Your task to perform on an android device: remove spam from my inbox in the gmail app Image 0: 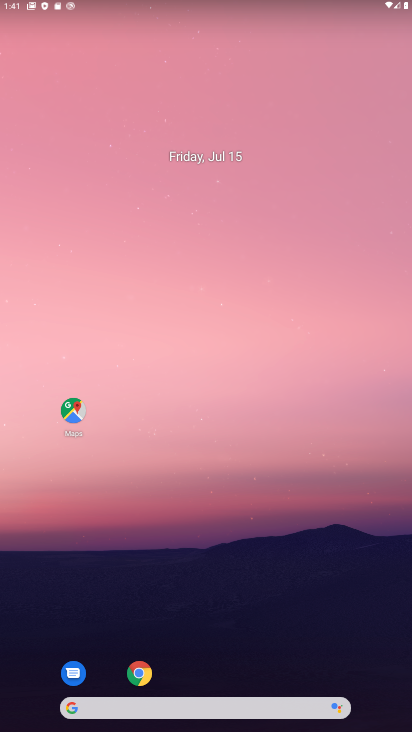
Step 0: drag from (385, 587) to (343, 188)
Your task to perform on an android device: remove spam from my inbox in the gmail app Image 1: 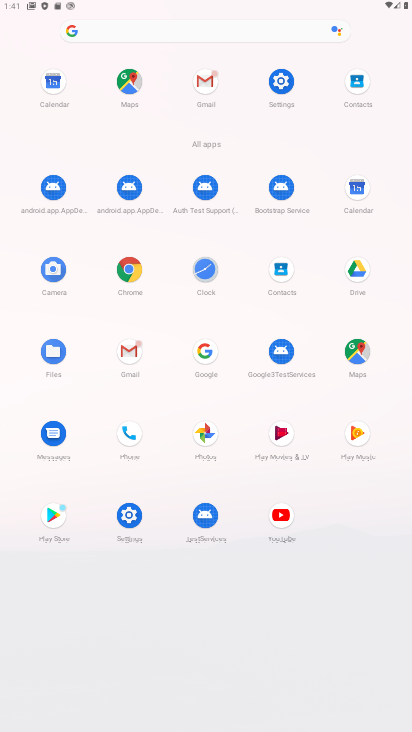
Step 1: click (129, 348)
Your task to perform on an android device: remove spam from my inbox in the gmail app Image 2: 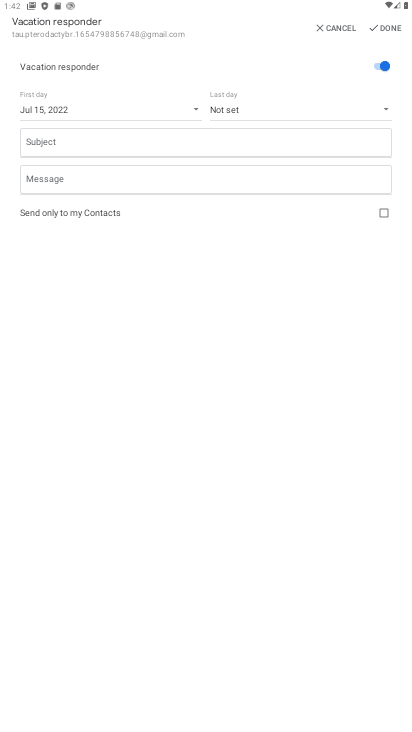
Step 2: press home button
Your task to perform on an android device: remove spam from my inbox in the gmail app Image 3: 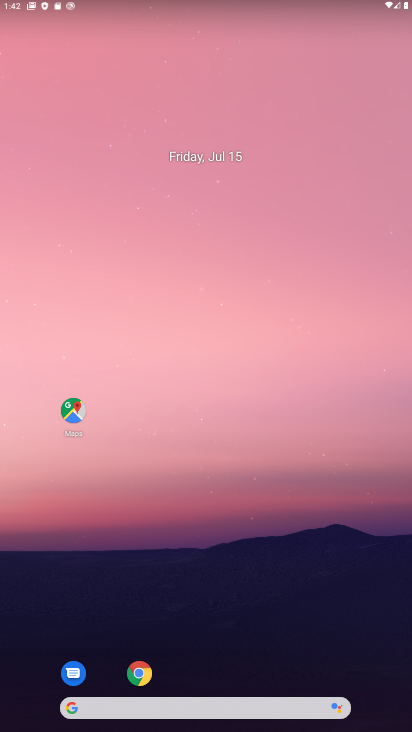
Step 3: drag from (382, 612) to (239, 47)
Your task to perform on an android device: remove spam from my inbox in the gmail app Image 4: 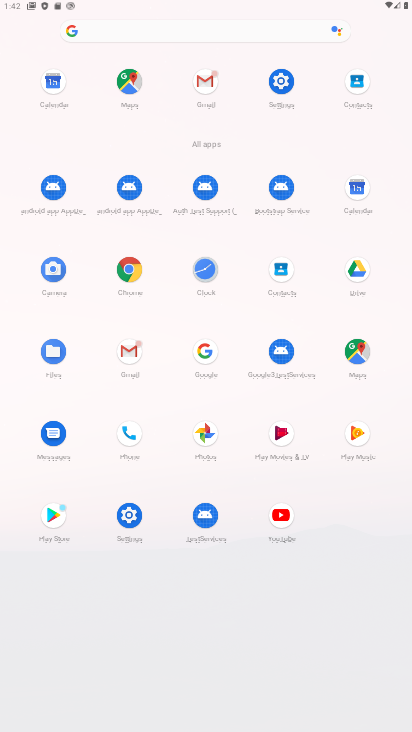
Step 4: click (210, 74)
Your task to perform on an android device: remove spam from my inbox in the gmail app Image 5: 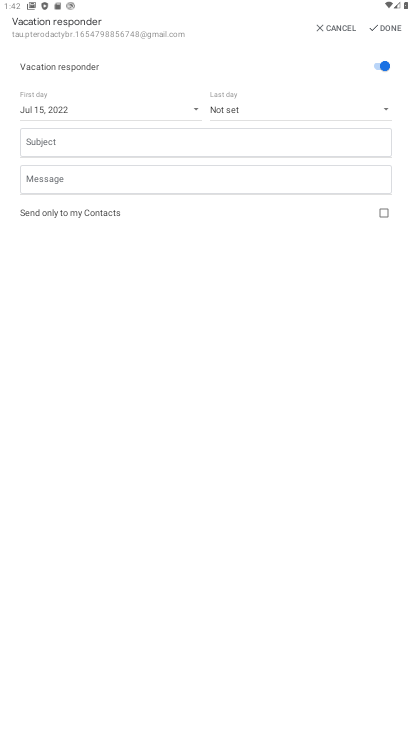
Step 5: press back button
Your task to perform on an android device: remove spam from my inbox in the gmail app Image 6: 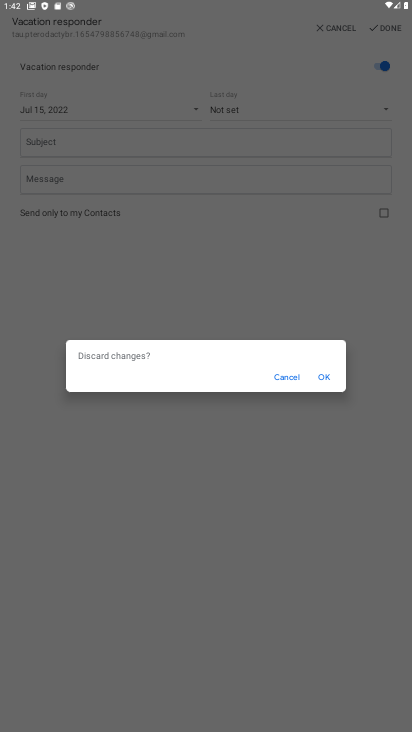
Step 6: click (328, 371)
Your task to perform on an android device: remove spam from my inbox in the gmail app Image 7: 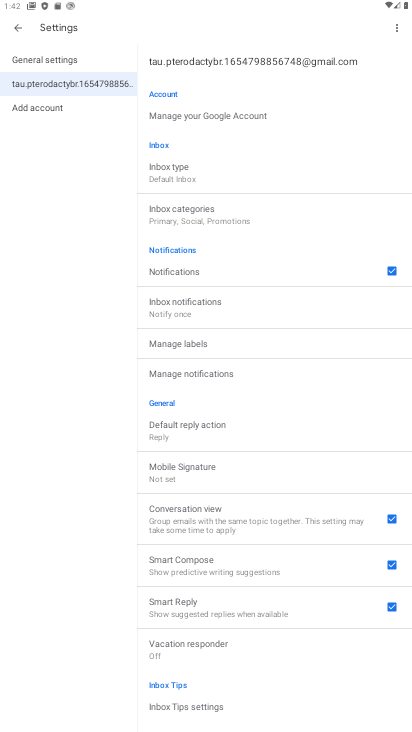
Step 7: click (18, 29)
Your task to perform on an android device: remove spam from my inbox in the gmail app Image 8: 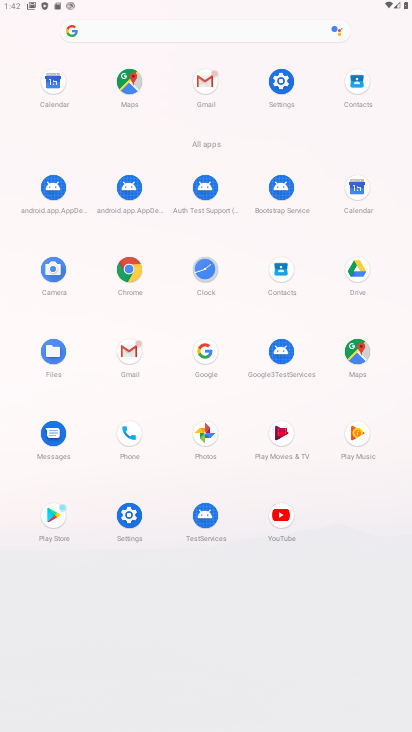
Step 8: click (127, 354)
Your task to perform on an android device: remove spam from my inbox in the gmail app Image 9: 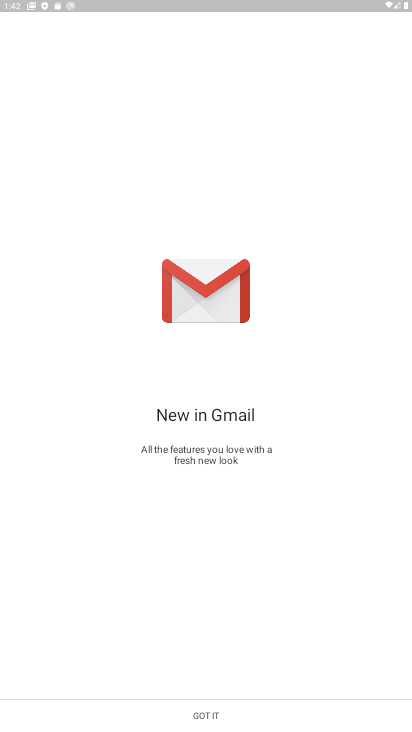
Step 9: click (200, 715)
Your task to perform on an android device: remove spam from my inbox in the gmail app Image 10: 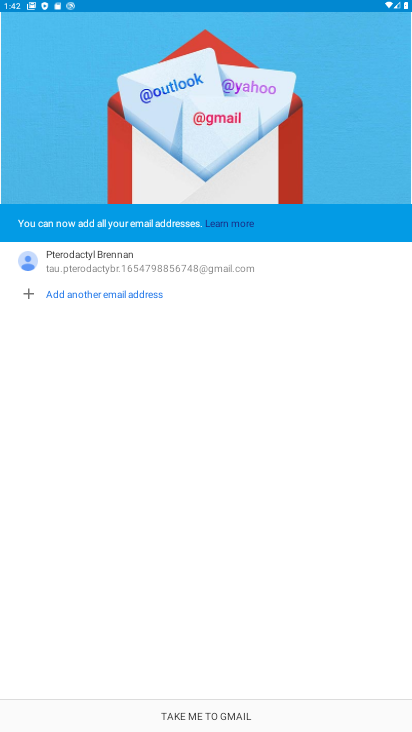
Step 10: click (199, 711)
Your task to perform on an android device: remove spam from my inbox in the gmail app Image 11: 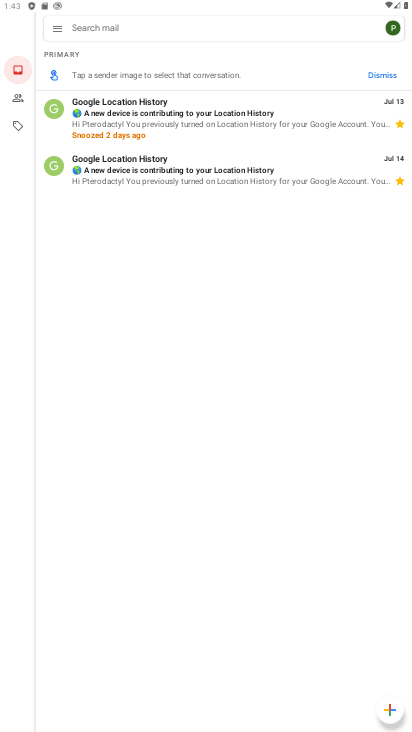
Step 11: click (52, 31)
Your task to perform on an android device: remove spam from my inbox in the gmail app Image 12: 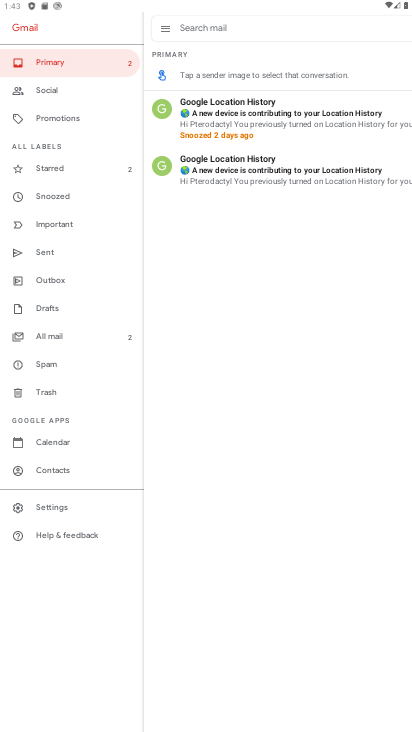
Step 12: click (42, 361)
Your task to perform on an android device: remove spam from my inbox in the gmail app Image 13: 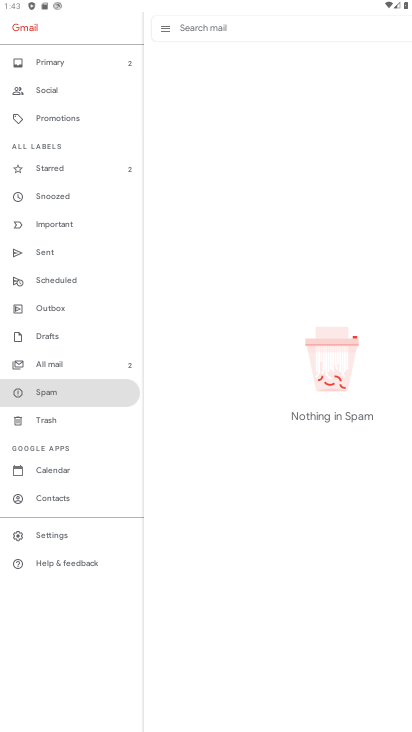
Step 13: click (49, 392)
Your task to perform on an android device: remove spam from my inbox in the gmail app Image 14: 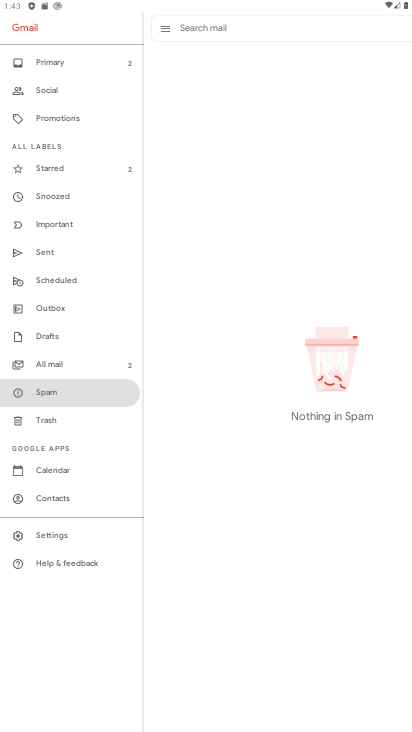
Step 14: task complete